Your task to perform on an android device: open device folders in google photos Image 0: 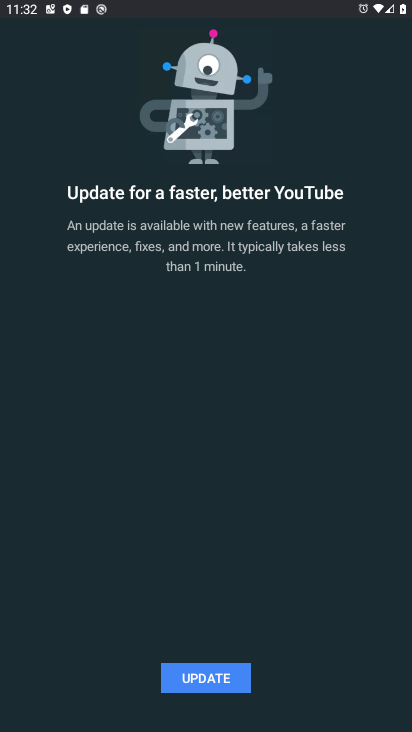
Step 0: press home button
Your task to perform on an android device: open device folders in google photos Image 1: 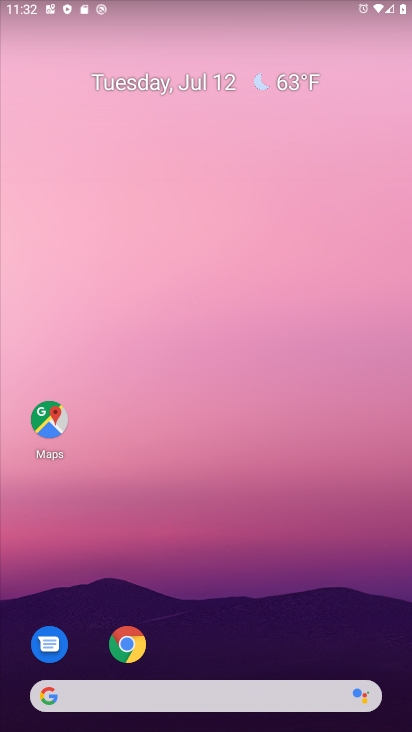
Step 1: drag from (229, 688) to (244, 56)
Your task to perform on an android device: open device folders in google photos Image 2: 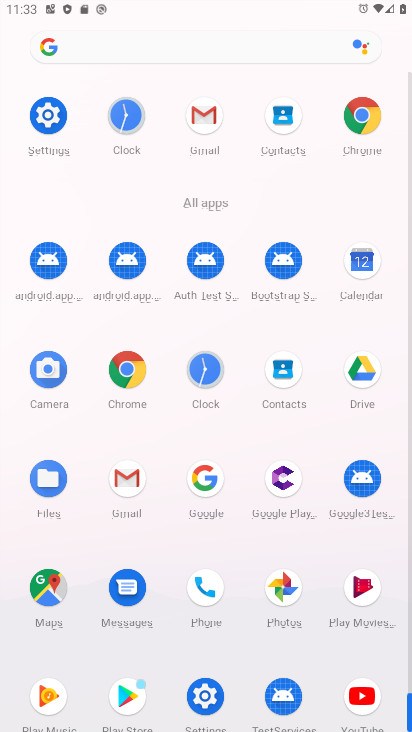
Step 2: click (282, 586)
Your task to perform on an android device: open device folders in google photos Image 3: 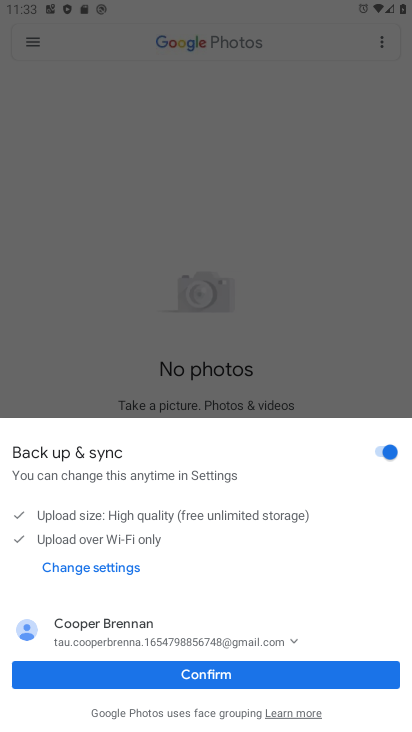
Step 3: click (219, 677)
Your task to perform on an android device: open device folders in google photos Image 4: 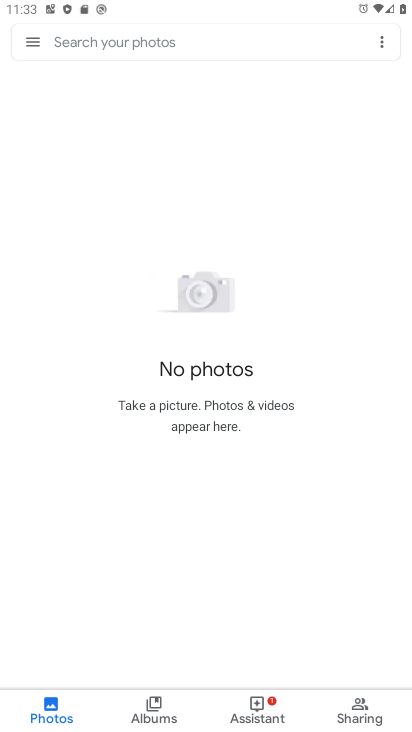
Step 4: click (38, 42)
Your task to perform on an android device: open device folders in google photos Image 5: 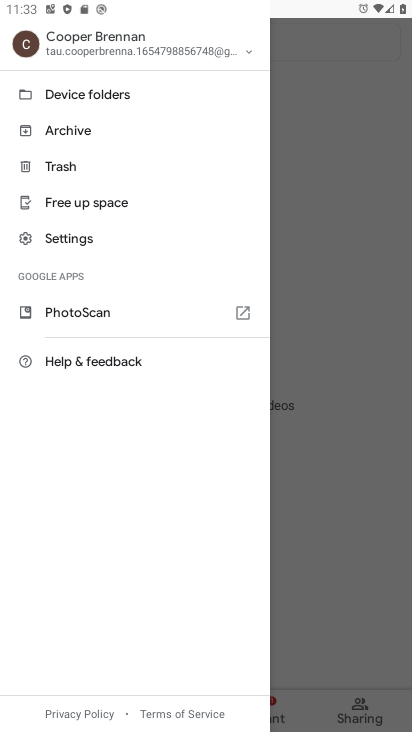
Step 5: click (61, 95)
Your task to perform on an android device: open device folders in google photos Image 6: 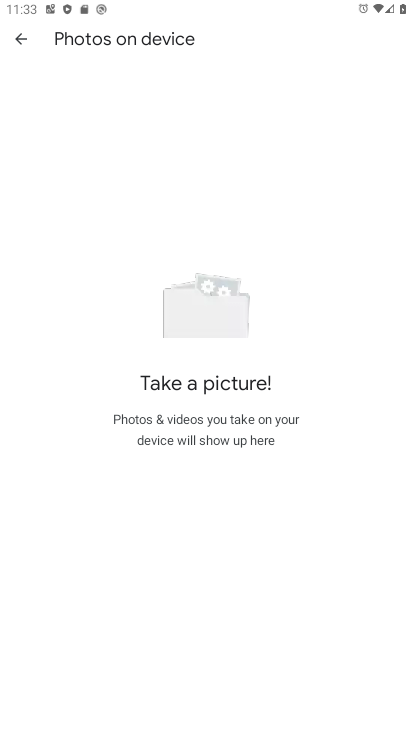
Step 6: task complete